Your task to perform on an android device: Go to display settings Image 0: 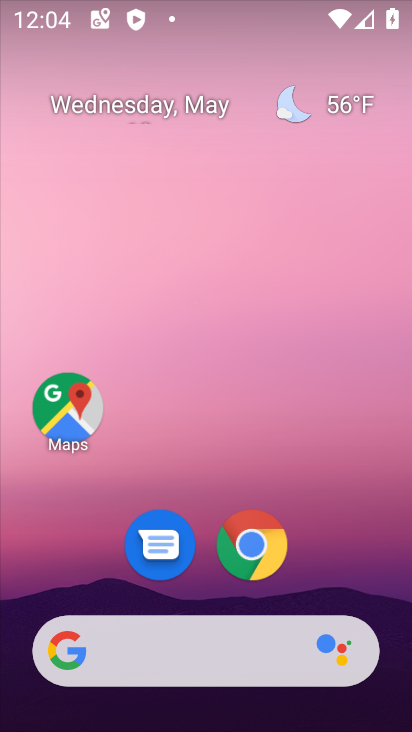
Step 0: drag from (325, 575) to (343, 168)
Your task to perform on an android device: Go to display settings Image 1: 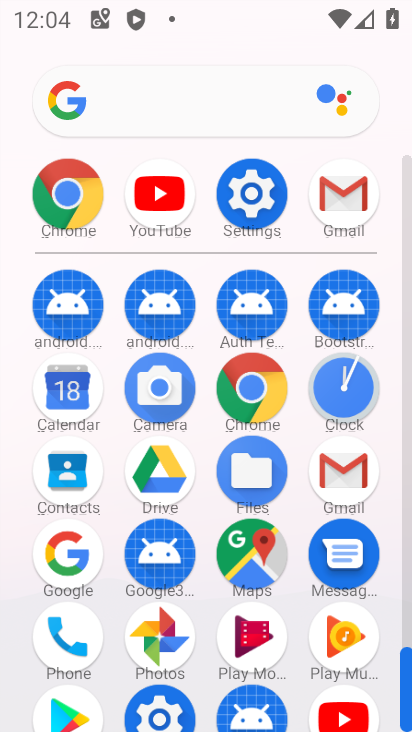
Step 1: click (250, 199)
Your task to perform on an android device: Go to display settings Image 2: 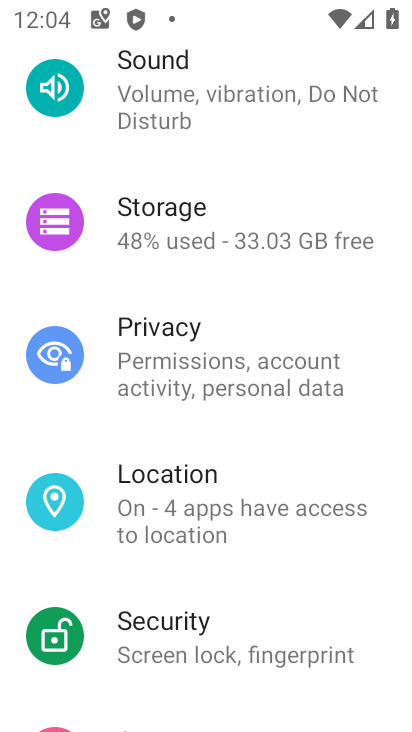
Step 2: drag from (401, 256) to (321, 334)
Your task to perform on an android device: Go to display settings Image 3: 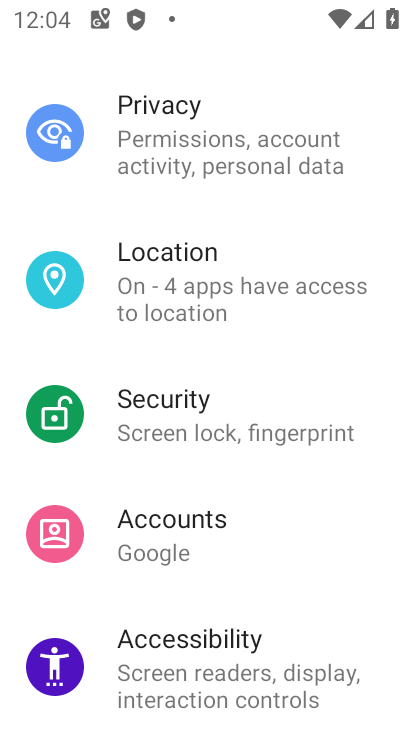
Step 3: drag from (253, 254) to (103, 588)
Your task to perform on an android device: Go to display settings Image 4: 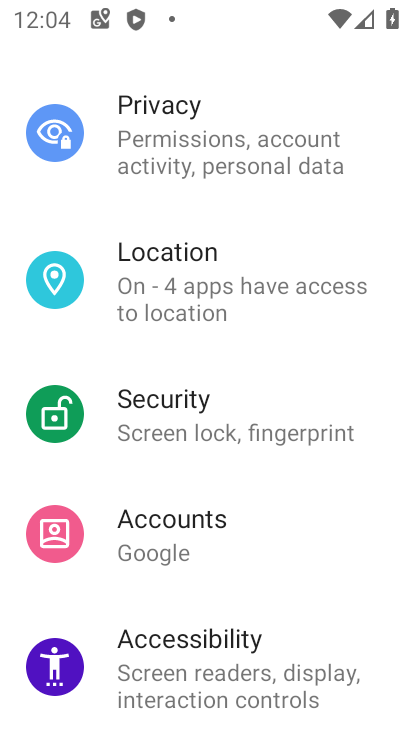
Step 4: drag from (250, 334) to (308, 730)
Your task to perform on an android device: Go to display settings Image 5: 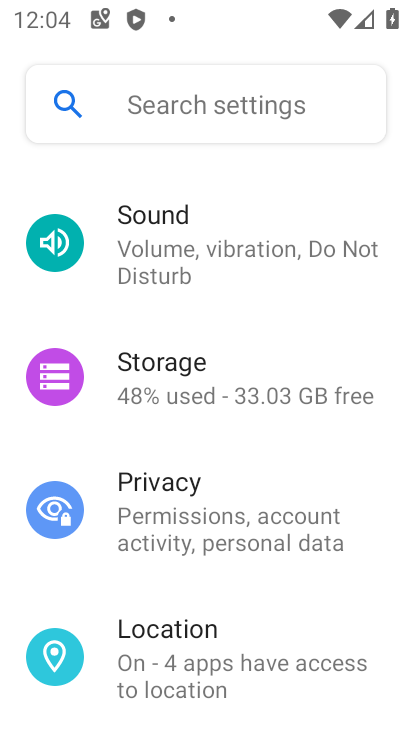
Step 5: drag from (205, 378) to (314, 729)
Your task to perform on an android device: Go to display settings Image 6: 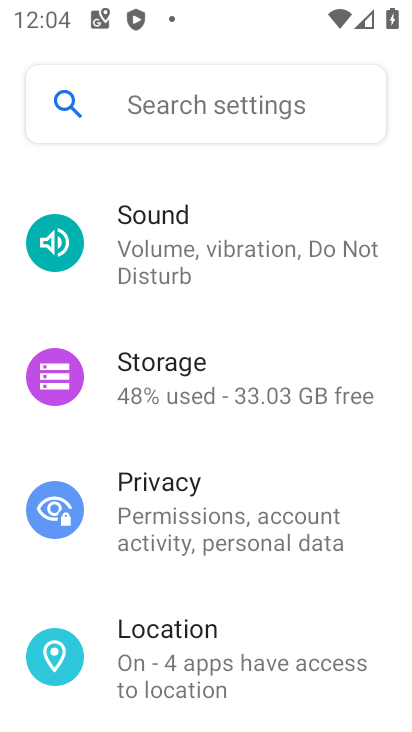
Step 6: drag from (301, 195) to (302, 639)
Your task to perform on an android device: Go to display settings Image 7: 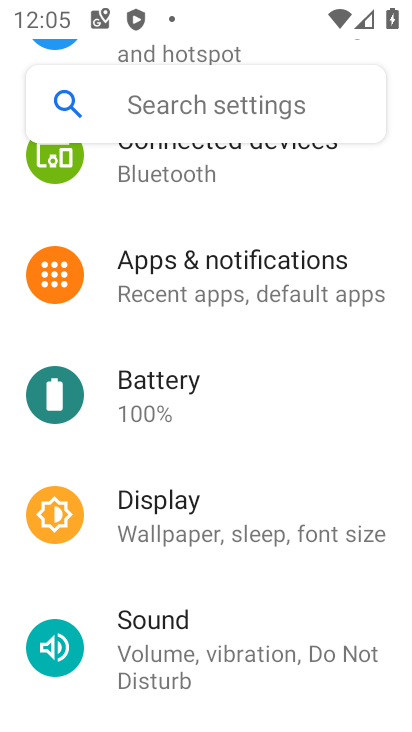
Step 7: click (230, 517)
Your task to perform on an android device: Go to display settings Image 8: 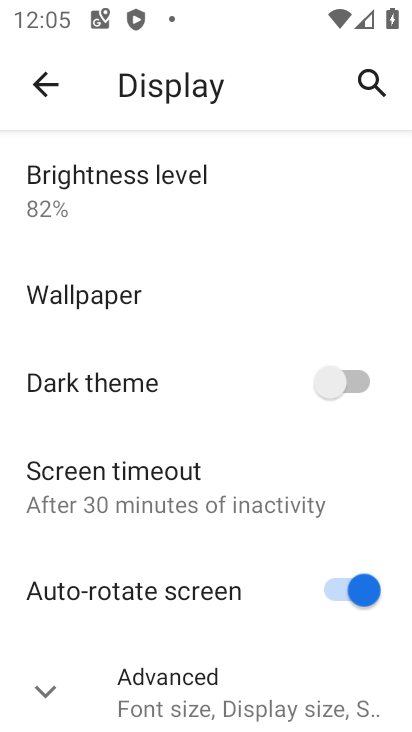
Step 8: drag from (181, 615) to (195, 452)
Your task to perform on an android device: Go to display settings Image 9: 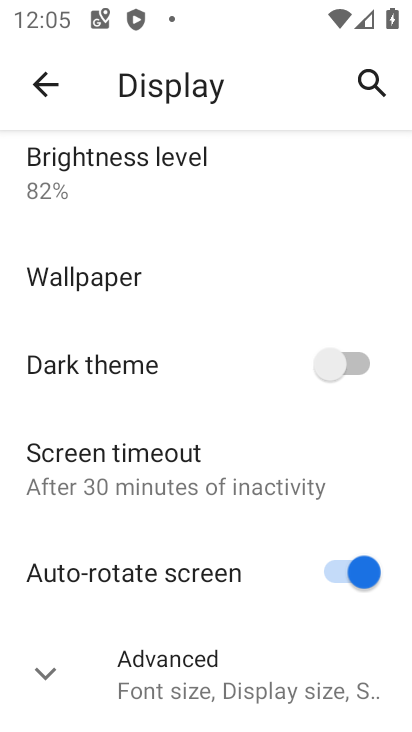
Step 9: click (176, 687)
Your task to perform on an android device: Go to display settings Image 10: 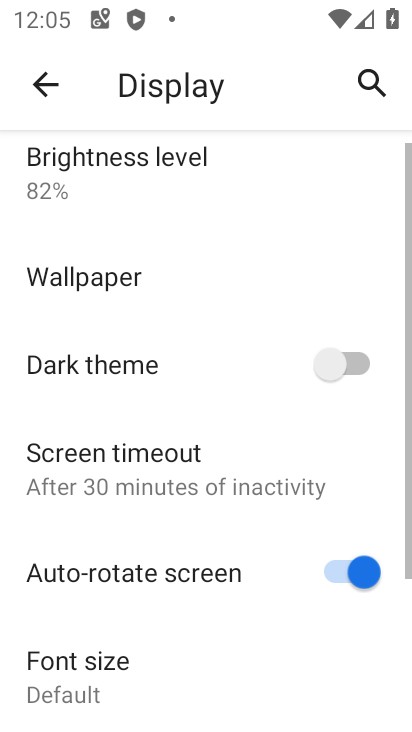
Step 10: task complete